Your task to perform on an android device: turn on showing notifications on the lock screen Image 0: 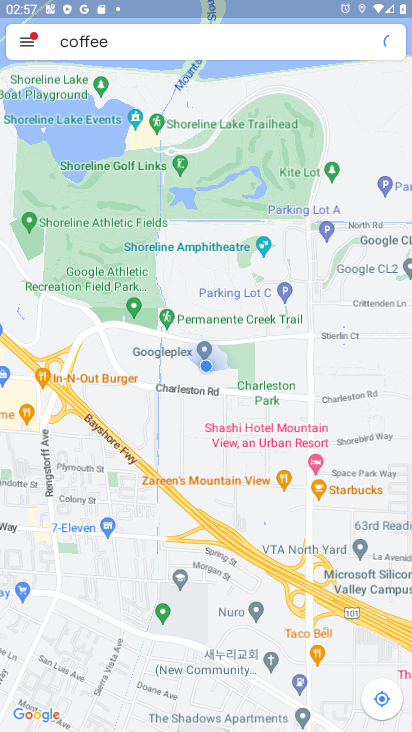
Step 0: press home button
Your task to perform on an android device: turn on showing notifications on the lock screen Image 1: 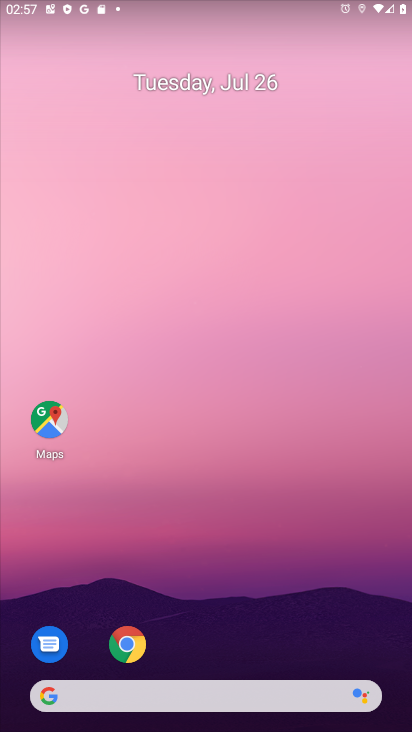
Step 1: drag from (199, 678) to (210, 60)
Your task to perform on an android device: turn on showing notifications on the lock screen Image 2: 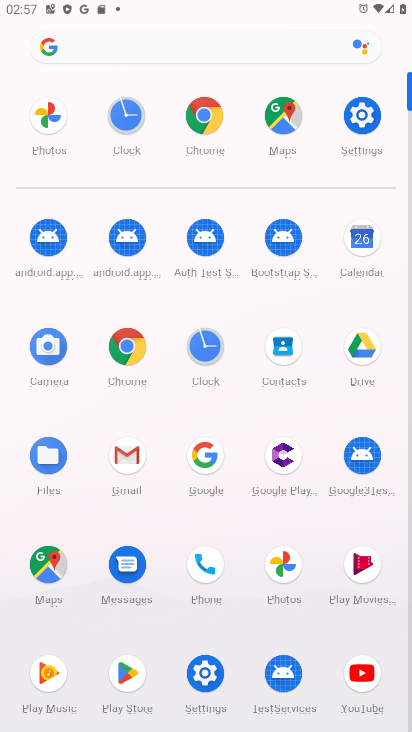
Step 2: click (362, 118)
Your task to perform on an android device: turn on showing notifications on the lock screen Image 3: 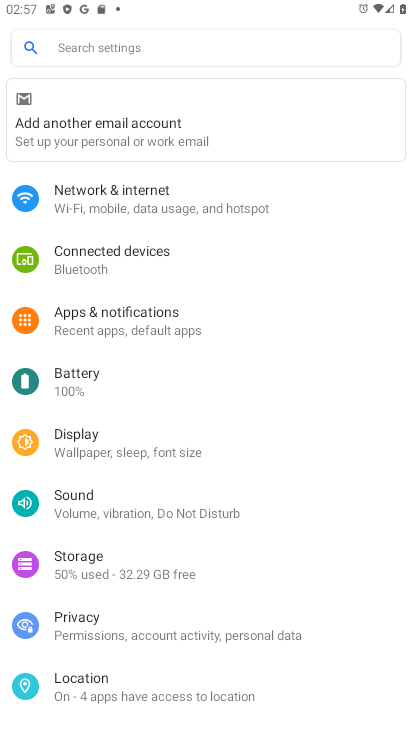
Step 3: click (125, 324)
Your task to perform on an android device: turn on showing notifications on the lock screen Image 4: 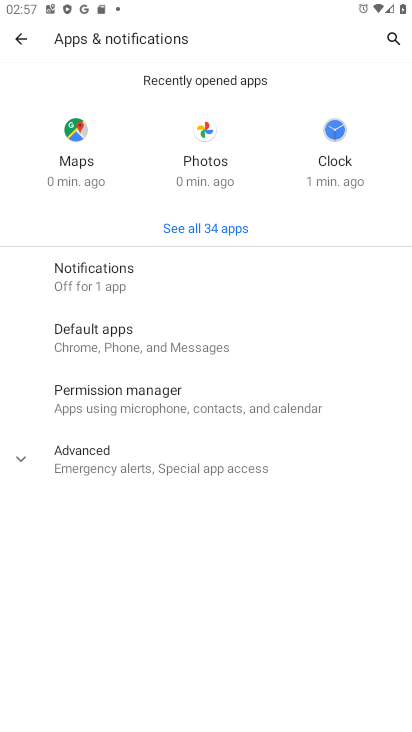
Step 4: click (117, 253)
Your task to perform on an android device: turn on showing notifications on the lock screen Image 5: 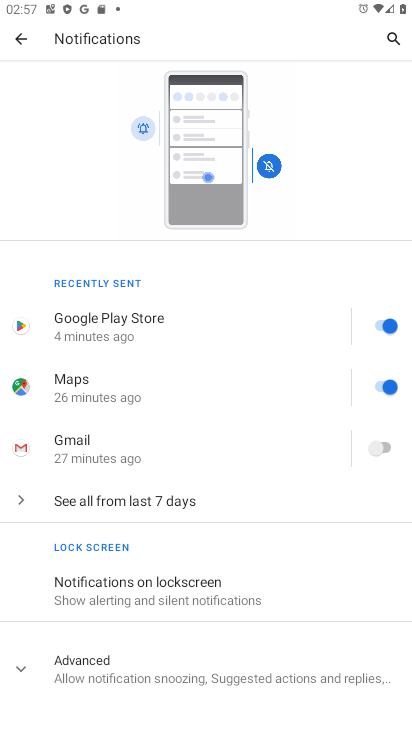
Step 5: click (258, 591)
Your task to perform on an android device: turn on showing notifications on the lock screen Image 6: 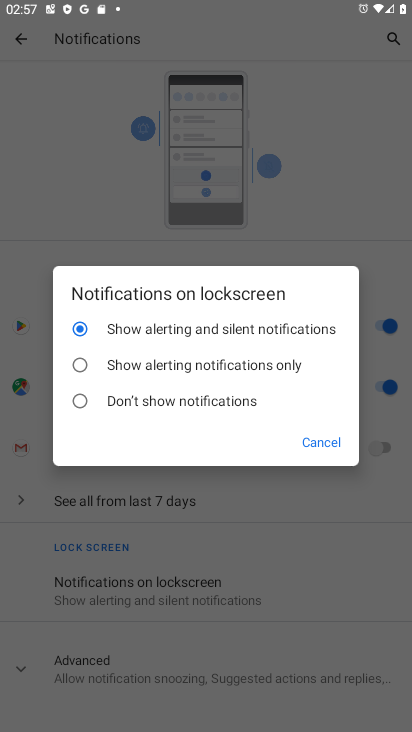
Step 6: click (189, 336)
Your task to perform on an android device: turn on showing notifications on the lock screen Image 7: 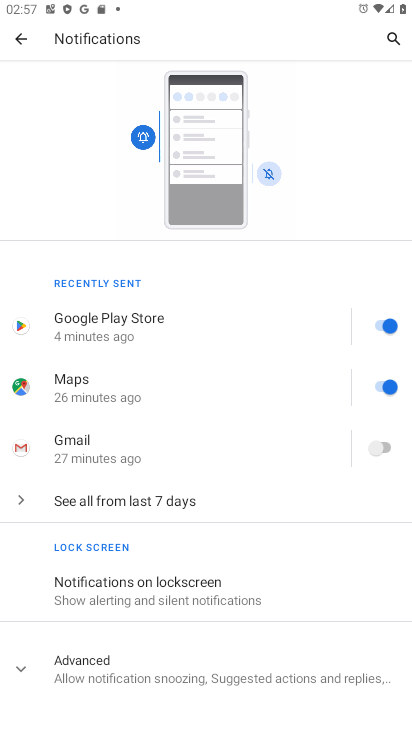
Step 7: task complete